Your task to perform on an android device: turn on the 24-hour format for clock Image 0: 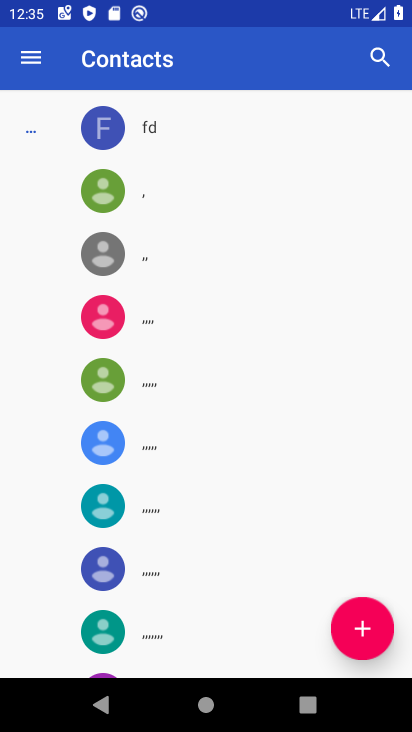
Step 0: drag from (167, 558) to (229, 43)
Your task to perform on an android device: turn on the 24-hour format for clock Image 1: 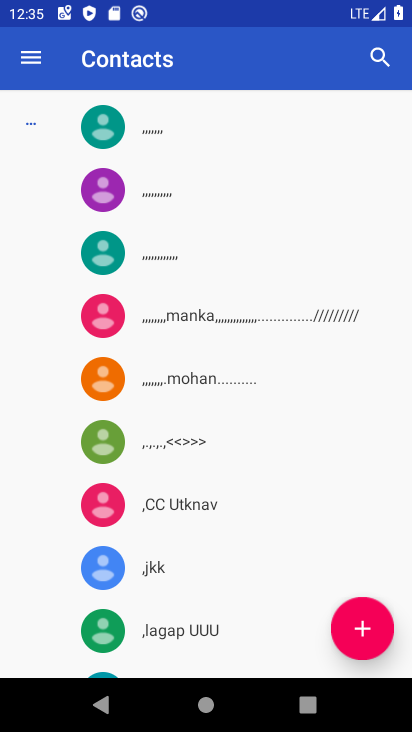
Step 1: press home button
Your task to perform on an android device: turn on the 24-hour format for clock Image 2: 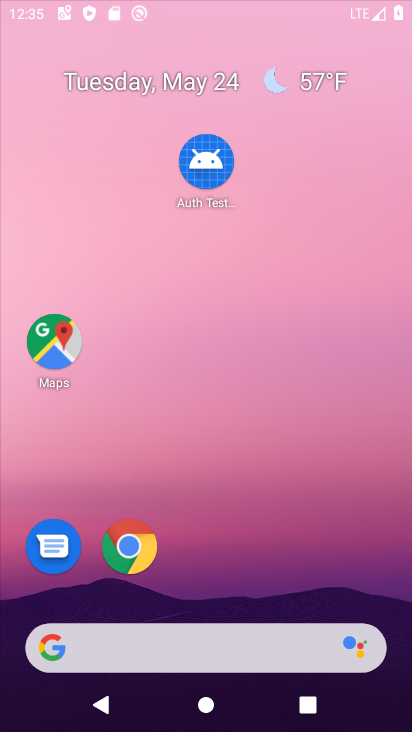
Step 2: drag from (206, 577) to (200, 33)
Your task to perform on an android device: turn on the 24-hour format for clock Image 3: 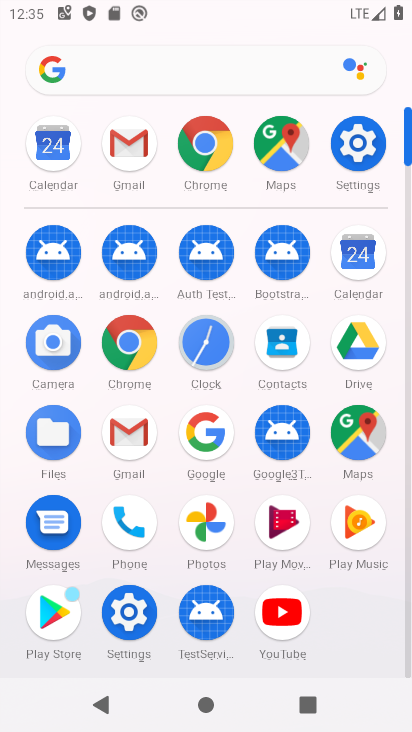
Step 3: click (207, 349)
Your task to perform on an android device: turn on the 24-hour format for clock Image 4: 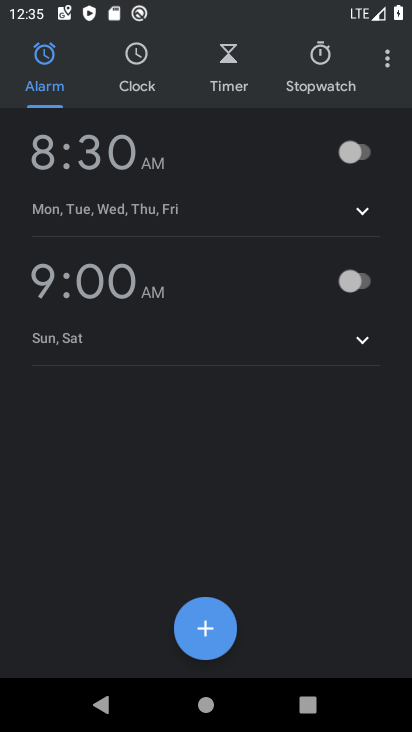
Step 4: click (389, 66)
Your task to perform on an android device: turn on the 24-hour format for clock Image 5: 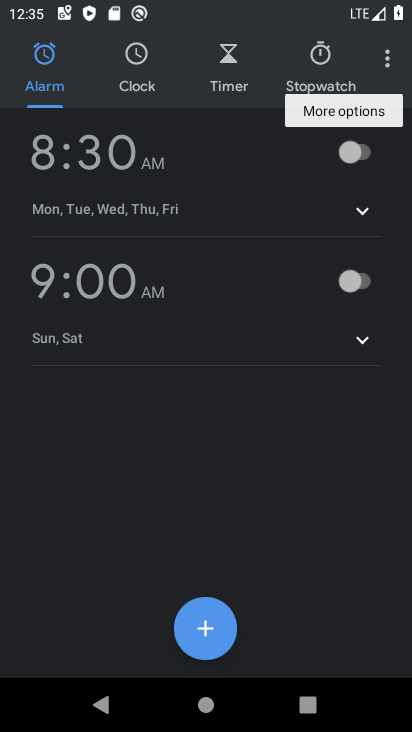
Step 5: click (333, 112)
Your task to perform on an android device: turn on the 24-hour format for clock Image 6: 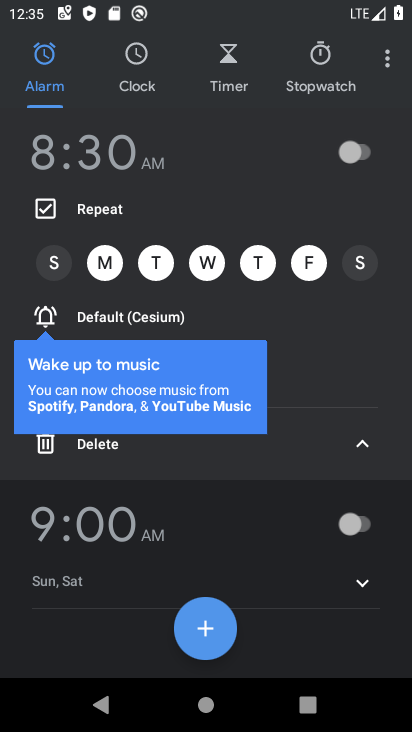
Step 6: click (384, 62)
Your task to perform on an android device: turn on the 24-hour format for clock Image 7: 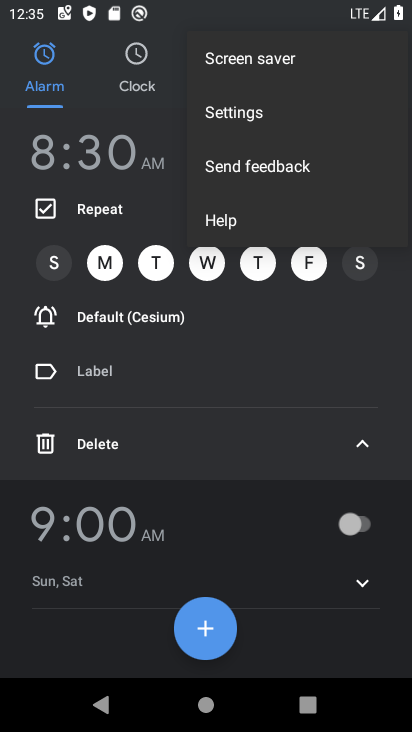
Step 7: click (236, 107)
Your task to perform on an android device: turn on the 24-hour format for clock Image 8: 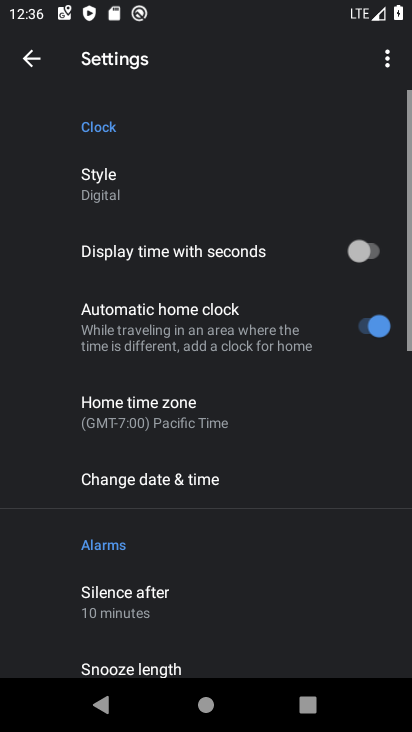
Step 8: drag from (231, 439) to (280, 79)
Your task to perform on an android device: turn on the 24-hour format for clock Image 9: 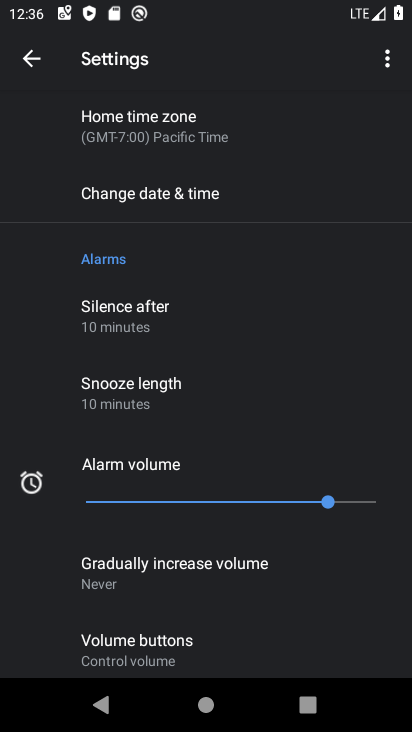
Step 9: drag from (187, 163) to (257, 463)
Your task to perform on an android device: turn on the 24-hour format for clock Image 10: 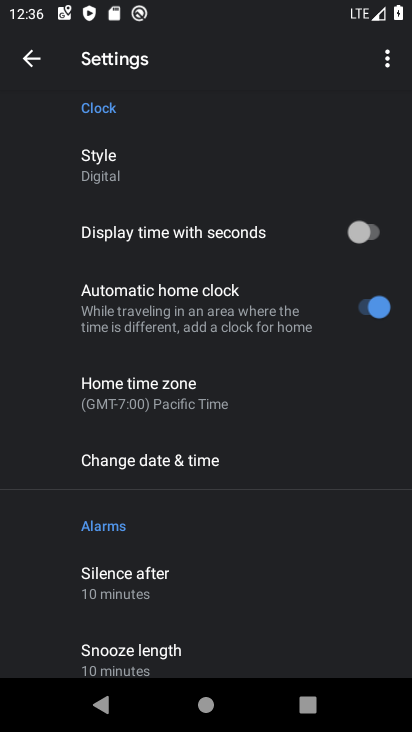
Step 10: drag from (225, 380) to (300, 102)
Your task to perform on an android device: turn on the 24-hour format for clock Image 11: 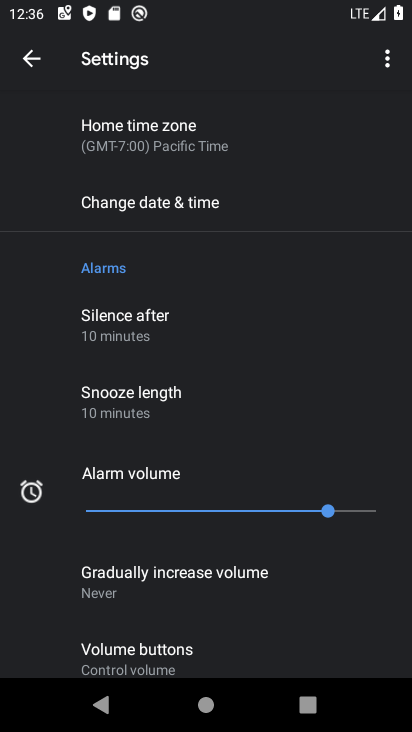
Step 11: click (194, 210)
Your task to perform on an android device: turn on the 24-hour format for clock Image 12: 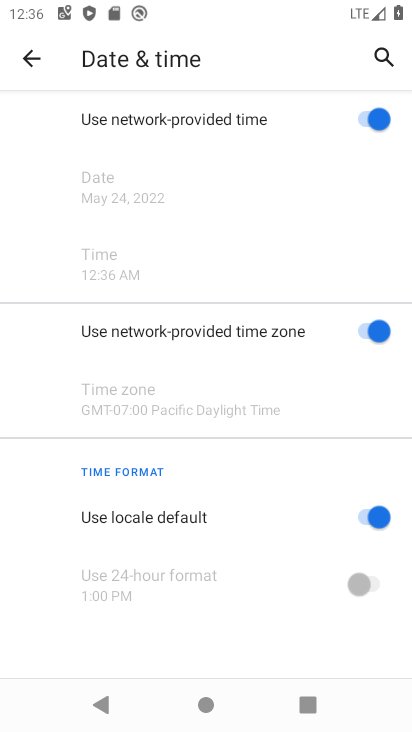
Step 12: click (369, 507)
Your task to perform on an android device: turn on the 24-hour format for clock Image 13: 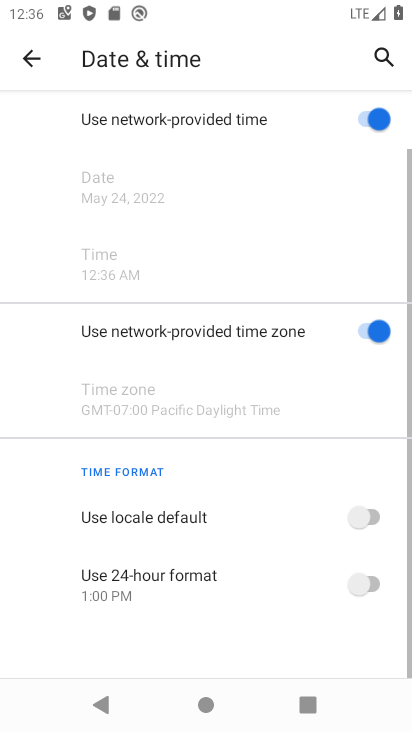
Step 13: click (343, 577)
Your task to perform on an android device: turn on the 24-hour format for clock Image 14: 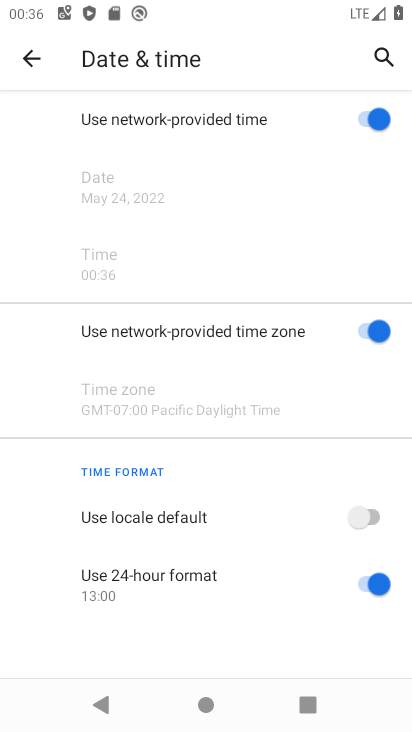
Step 14: task complete